Your task to perform on an android device: Empty the shopping cart on target. Add lenovo thinkpad to the cart on target, then select checkout. Image 0: 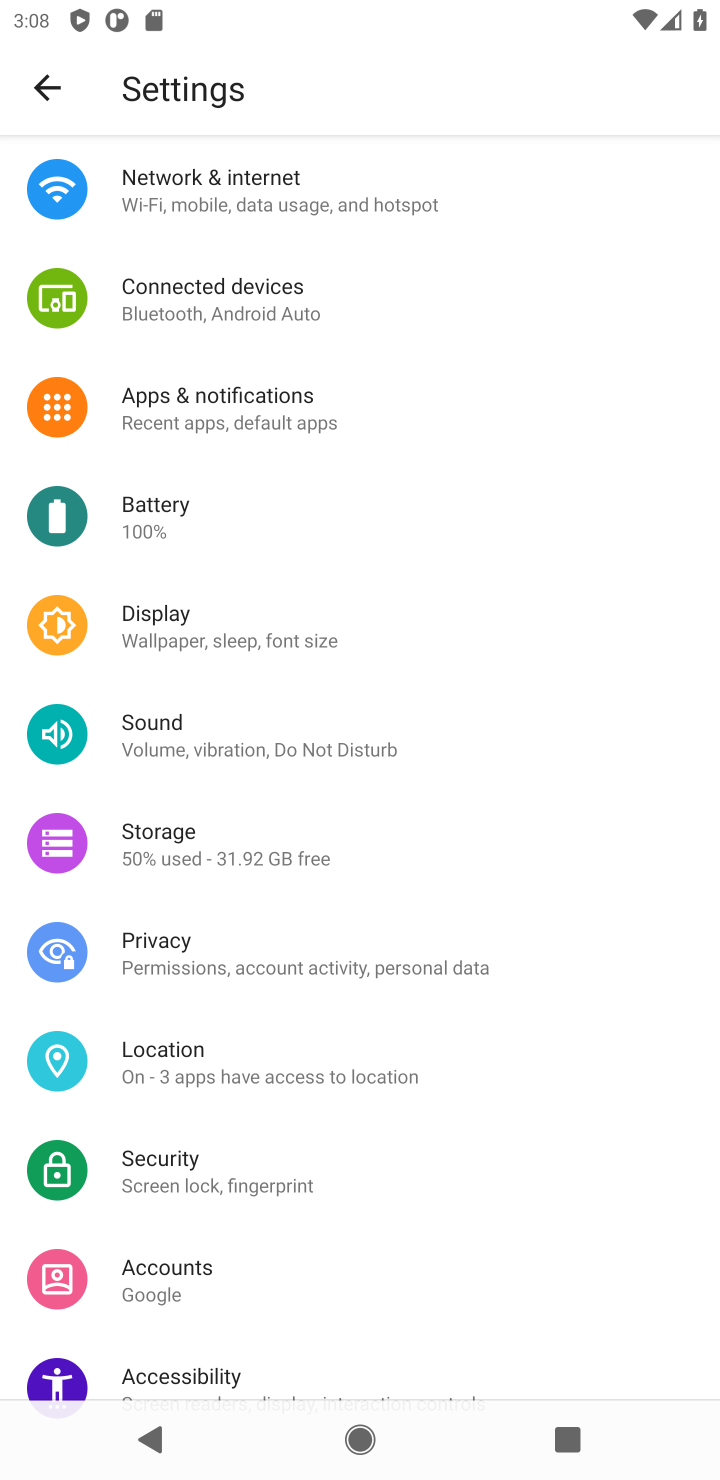
Step 0: press home button
Your task to perform on an android device: Empty the shopping cart on target. Add lenovo thinkpad to the cart on target, then select checkout. Image 1: 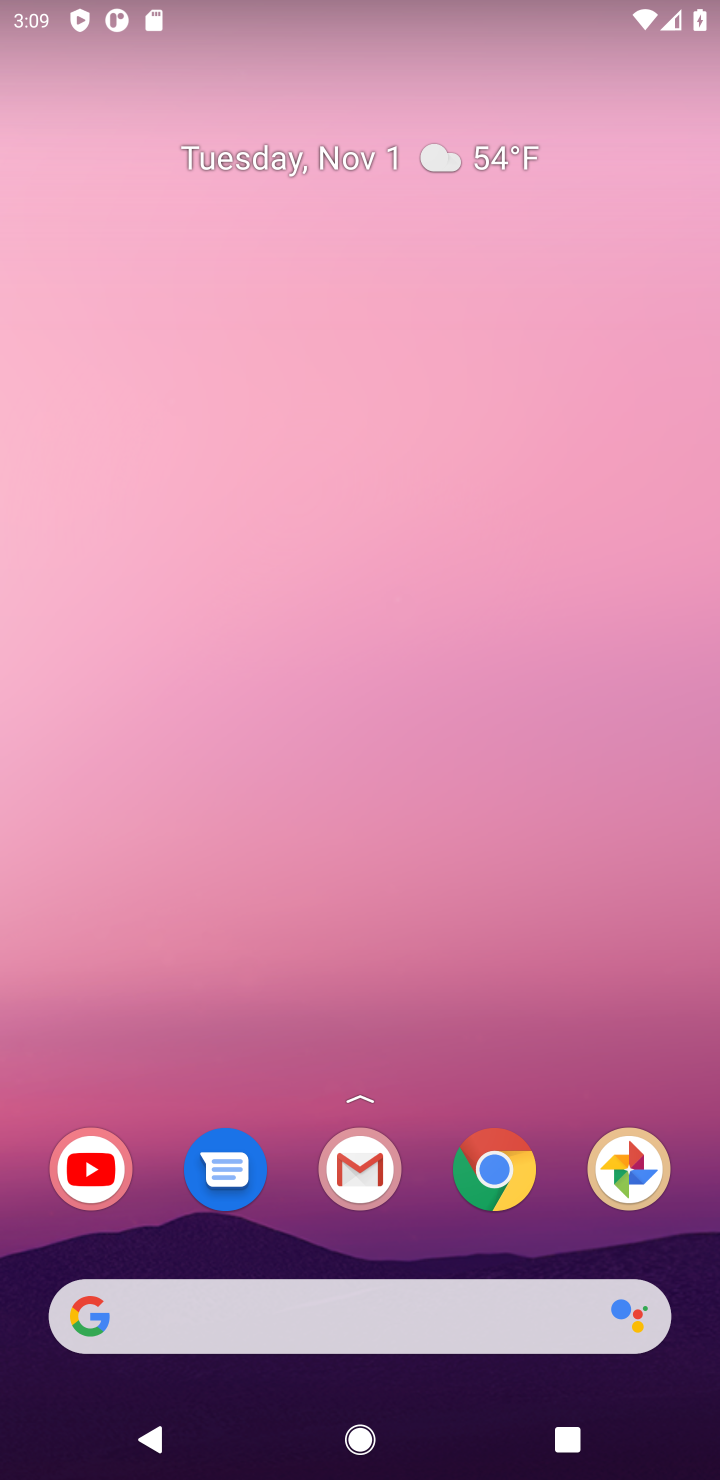
Step 1: click (476, 1175)
Your task to perform on an android device: Empty the shopping cart on target. Add lenovo thinkpad to the cart on target, then select checkout. Image 2: 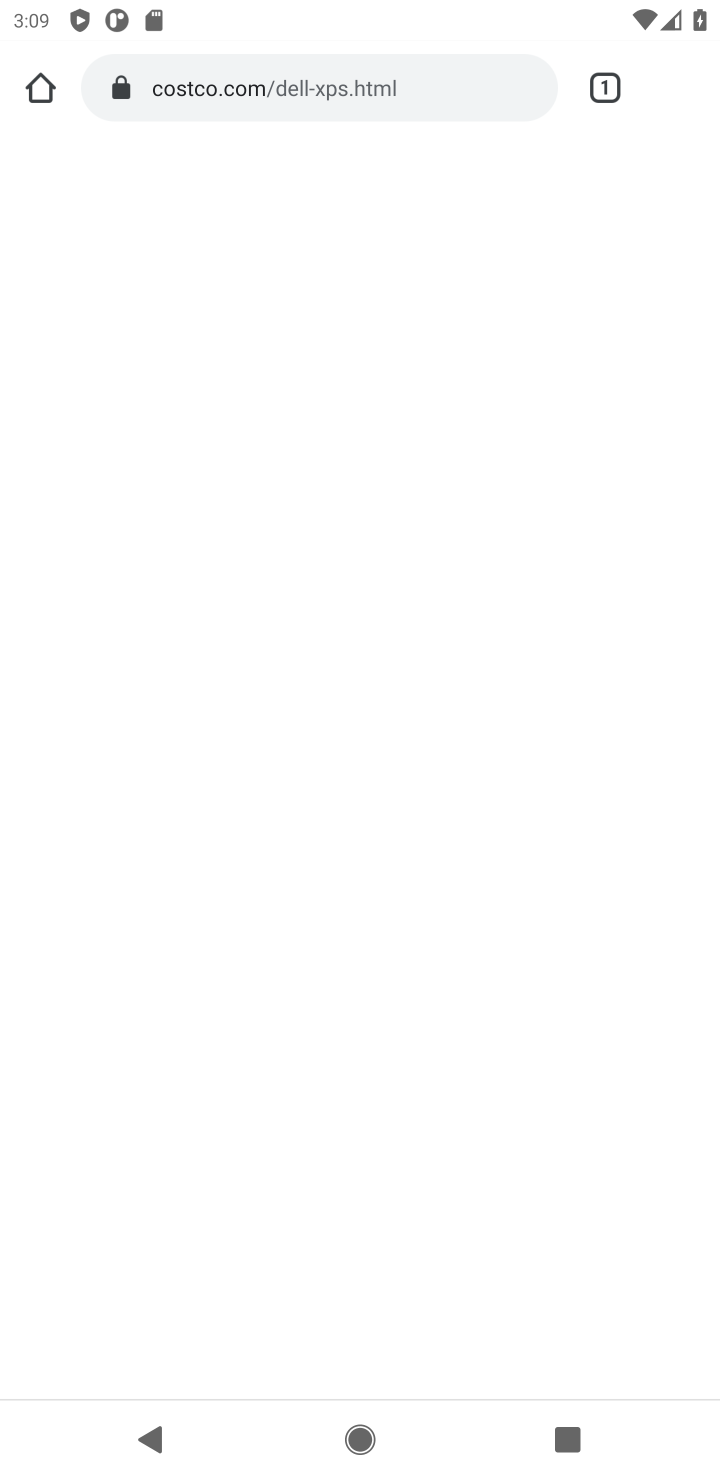
Step 2: click (476, 1175)
Your task to perform on an android device: Empty the shopping cart on target. Add lenovo thinkpad to the cart on target, then select checkout. Image 3: 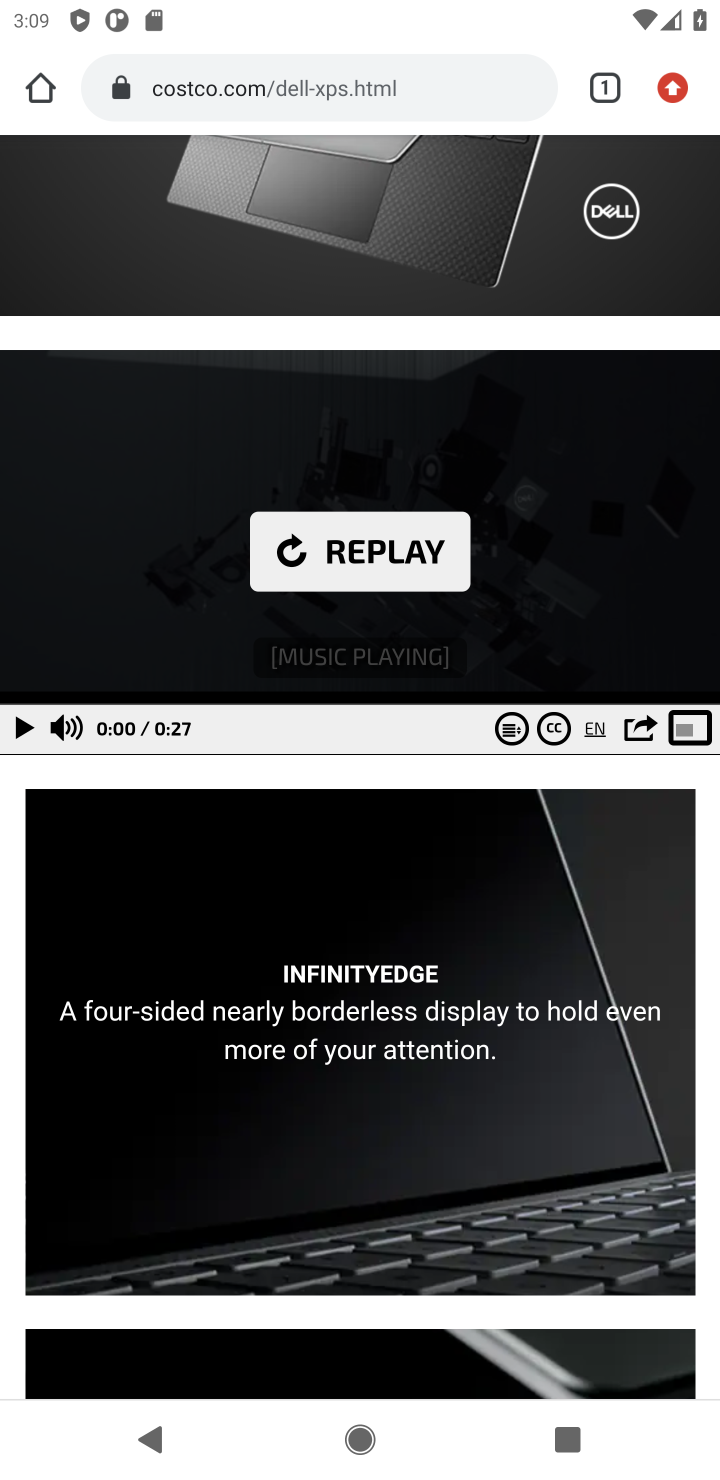
Step 3: click (173, 90)
Your task to perform on an android device: Empty the shopping cart on target. Add lenovo thinkpad to the cart on target, then select checkout. Image 4: 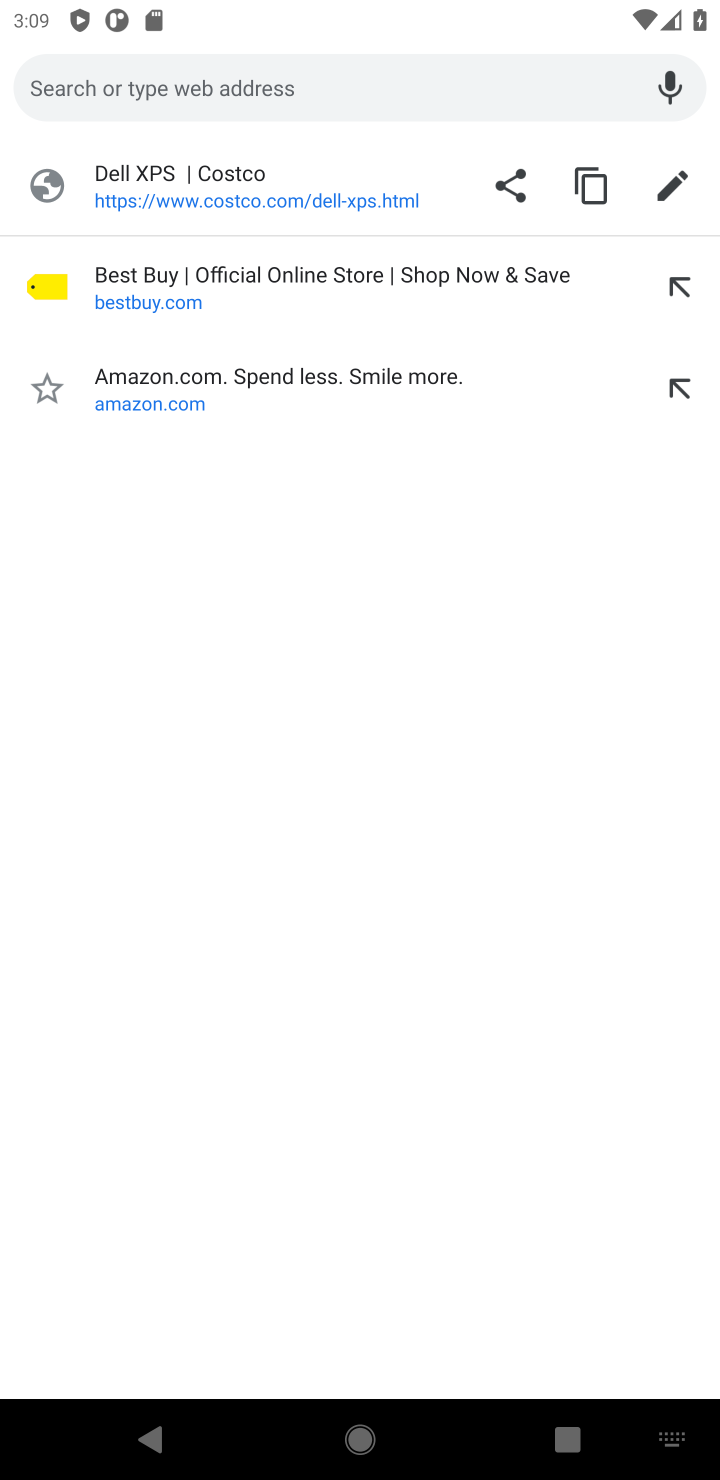
Step 4: type "target"
Your task to perform on an android device: Empty the shopping cart on target. Add lenovo thinkpad to the cart on target, then select checkout. Image 5: 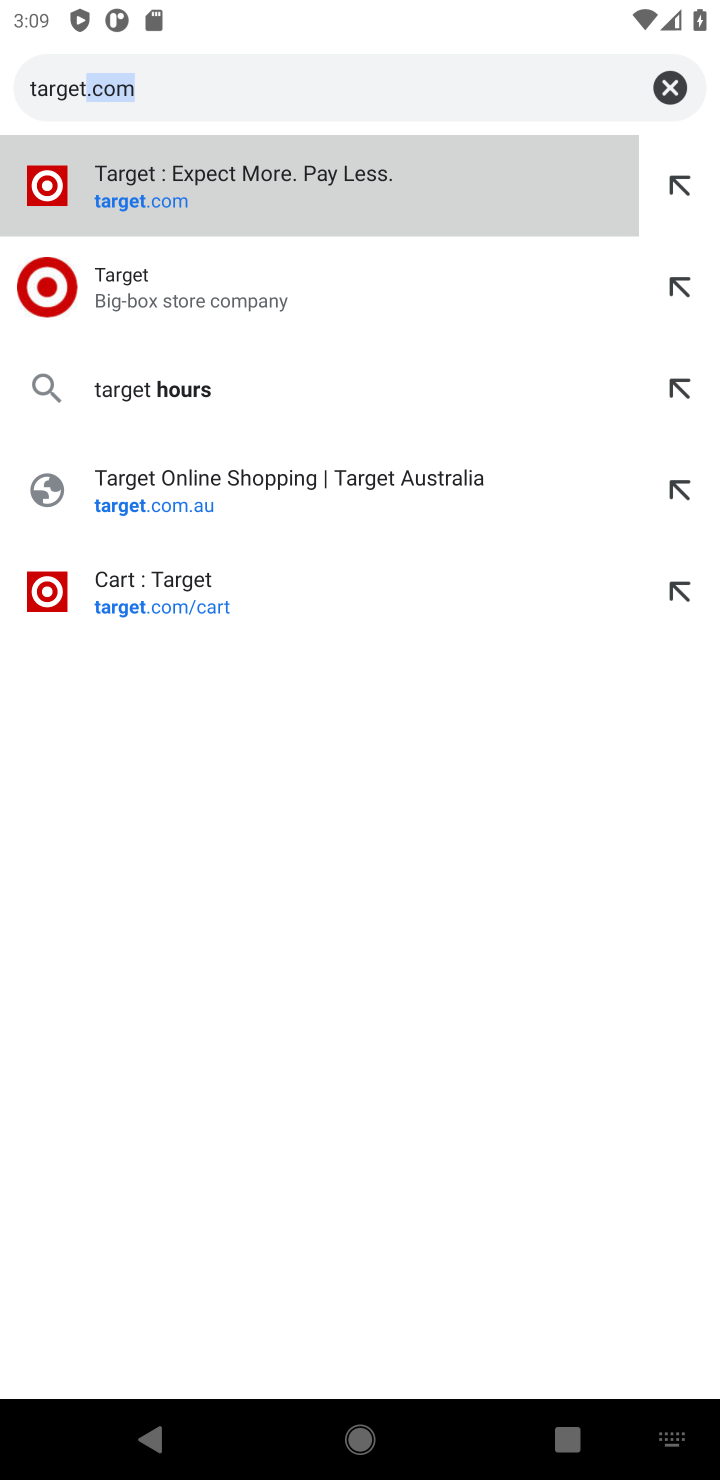
Step 5: click (292, 294)
Your task to perform on an android device: Empty the shopping cart on target. Add lenovo thinkpad to the cart on target, then select checkout. Image 6: 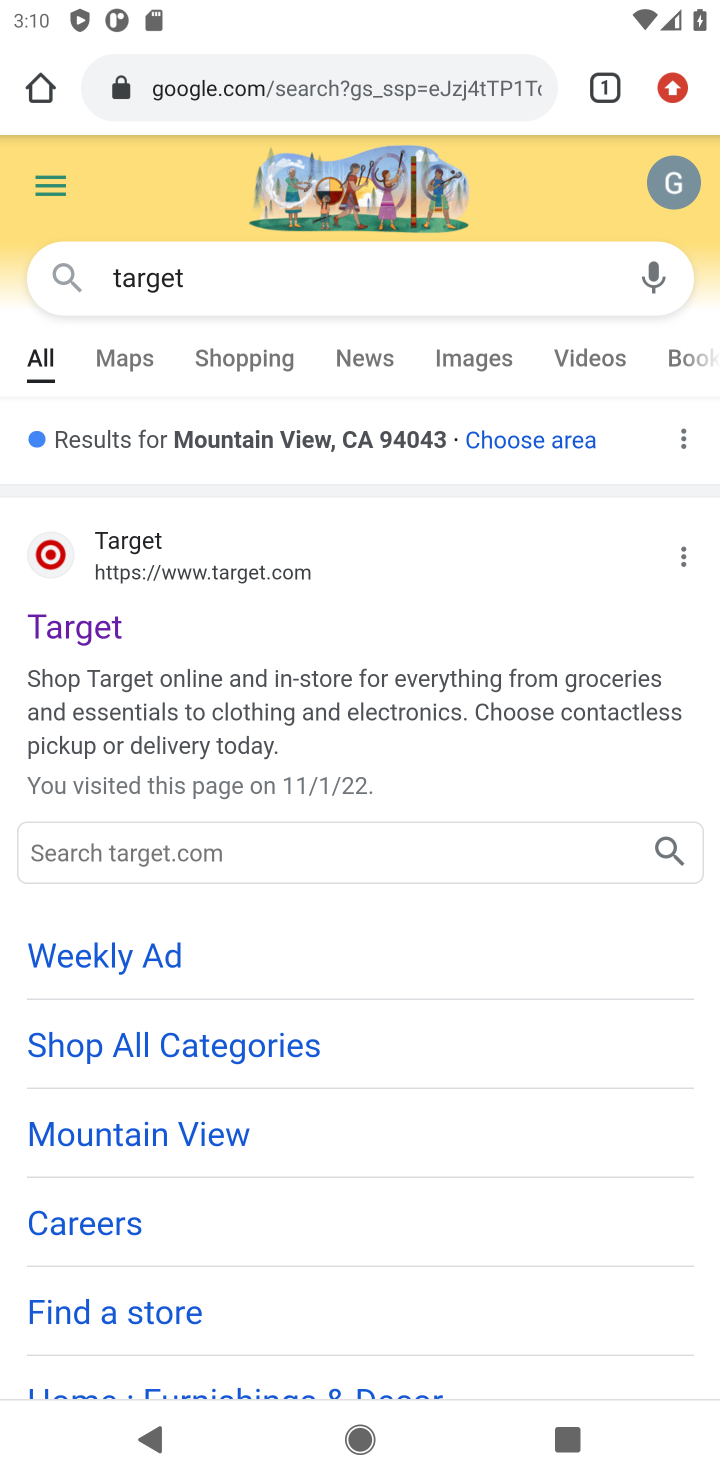
Step 6: click (61, 607)
Your task to perform on an android device: Empty the shopping cart on target. Add lenovo thinkpad to the cart on target, then select checkout. Image 7: 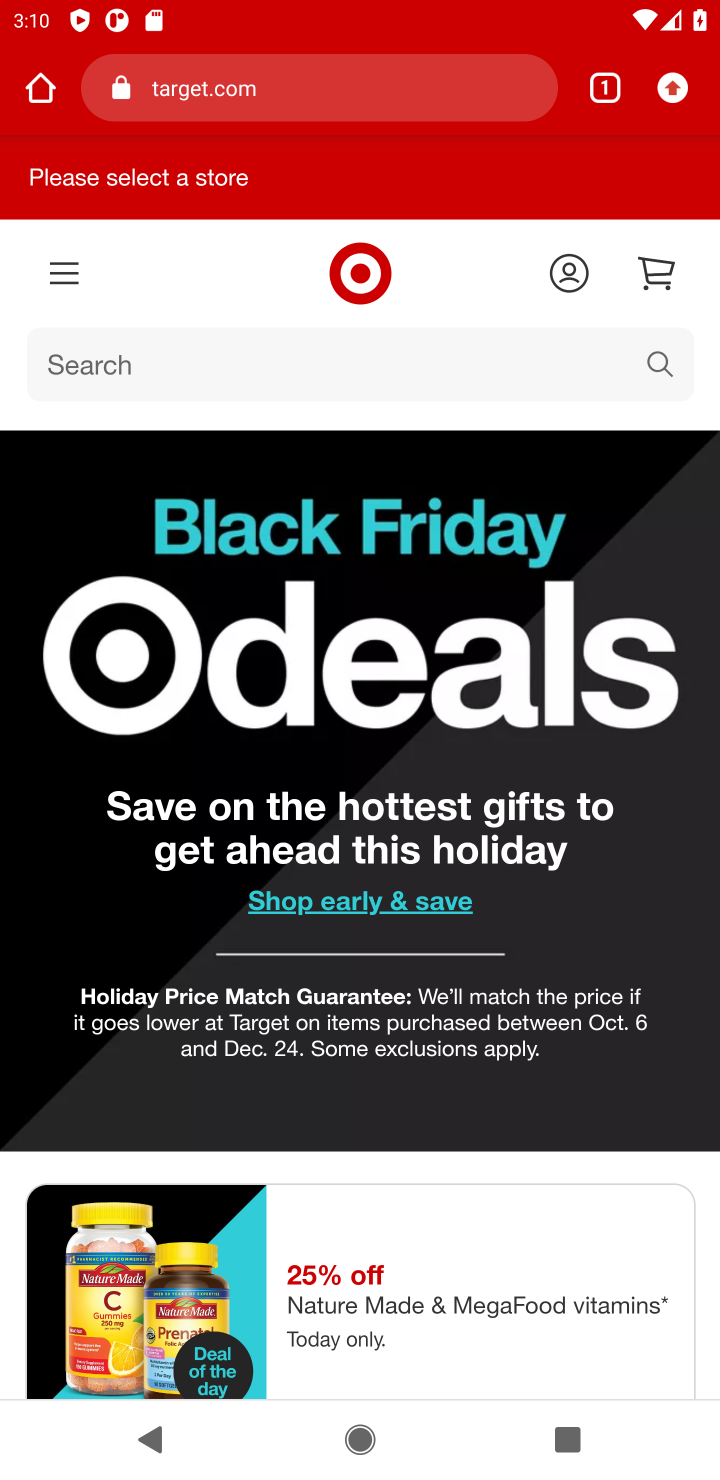
Step 7: click (660, 285)
Your task to perform on an android device: Empty the shopping cart on target. Add lenovo thinkpad to the cart on target, then select checkout. Image 8: 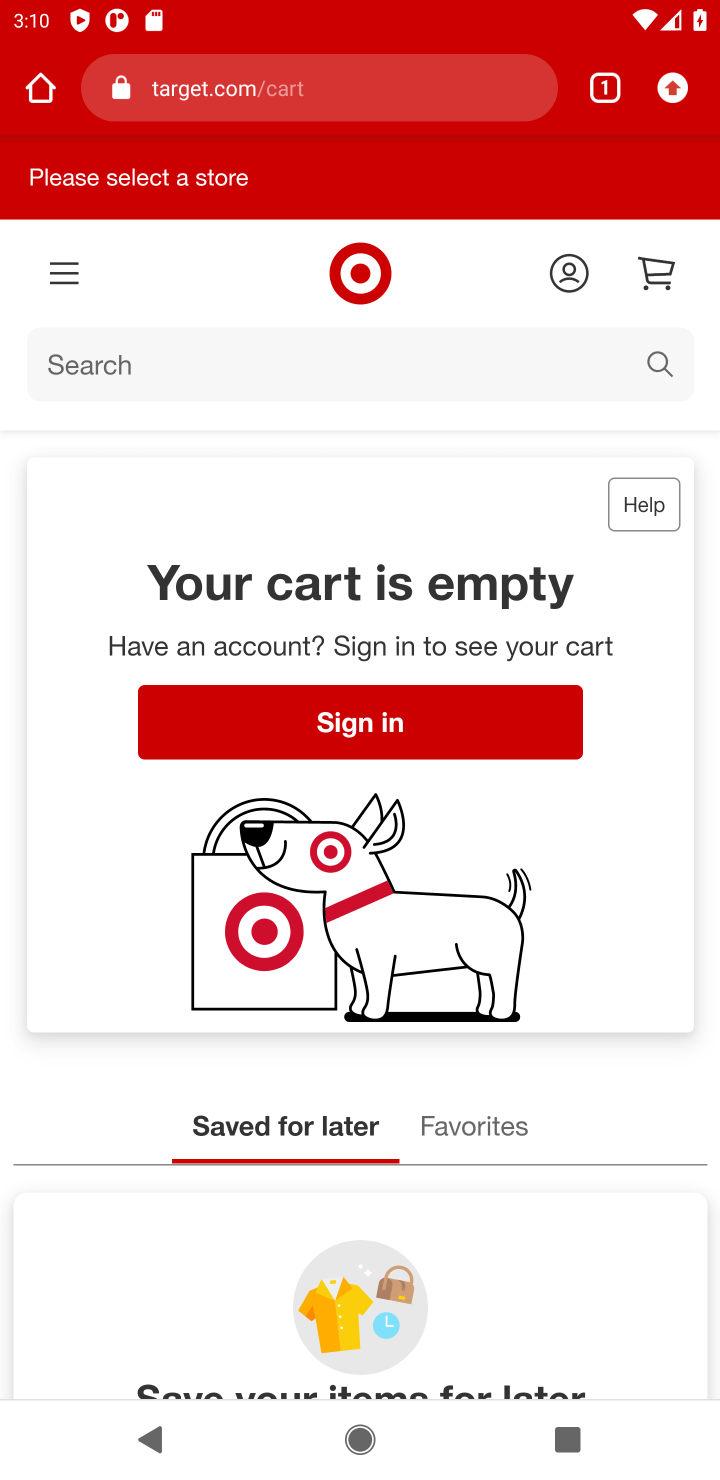
Step 8: click (188, 367)
Your task to perform on an android device: Empty the shopping cart on target. Add lenovo thinkpad to the cart on target, then select checkout. Image 9: 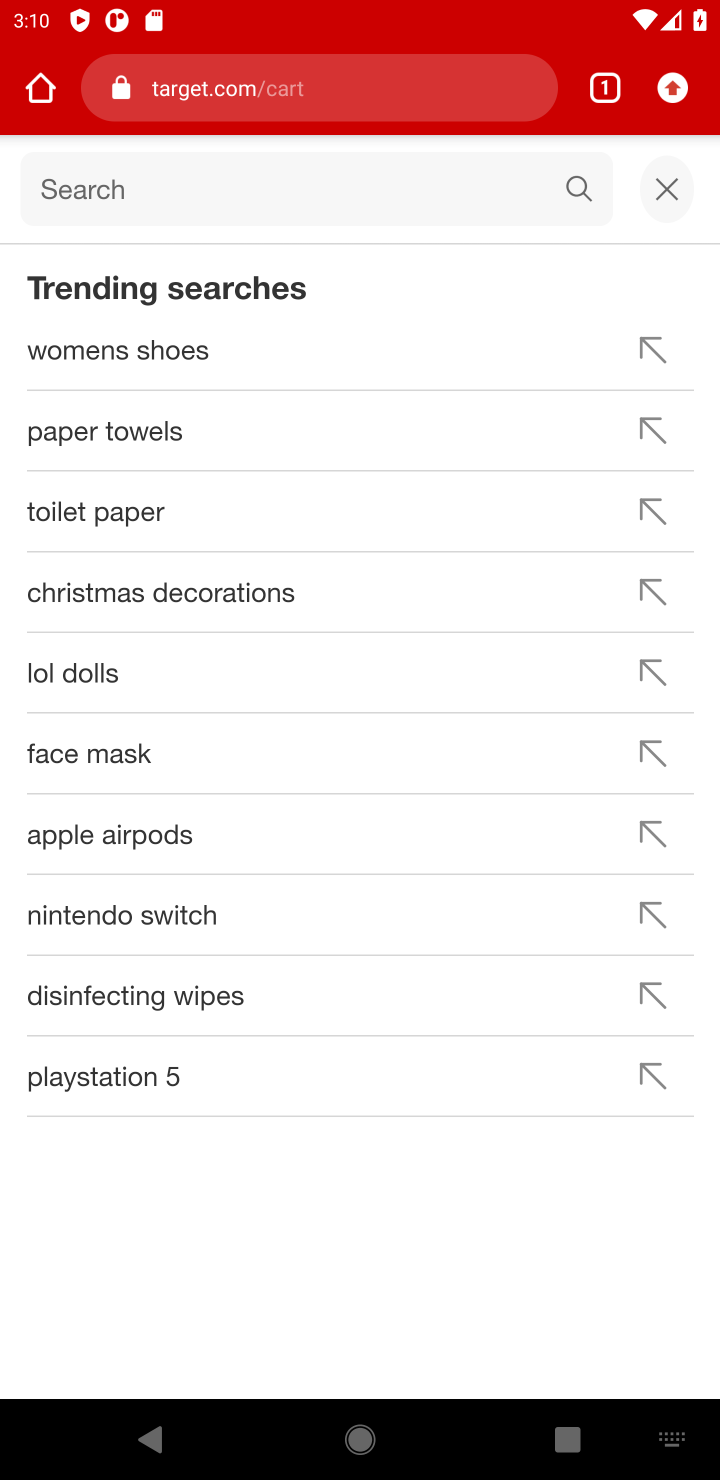
Step 9: type "lenovo thinkpad"
Your task to perform on an android device: Empty the shopping cart on target. Add lenovo thinkpad to the cart on target, then select checkout. Image 10: 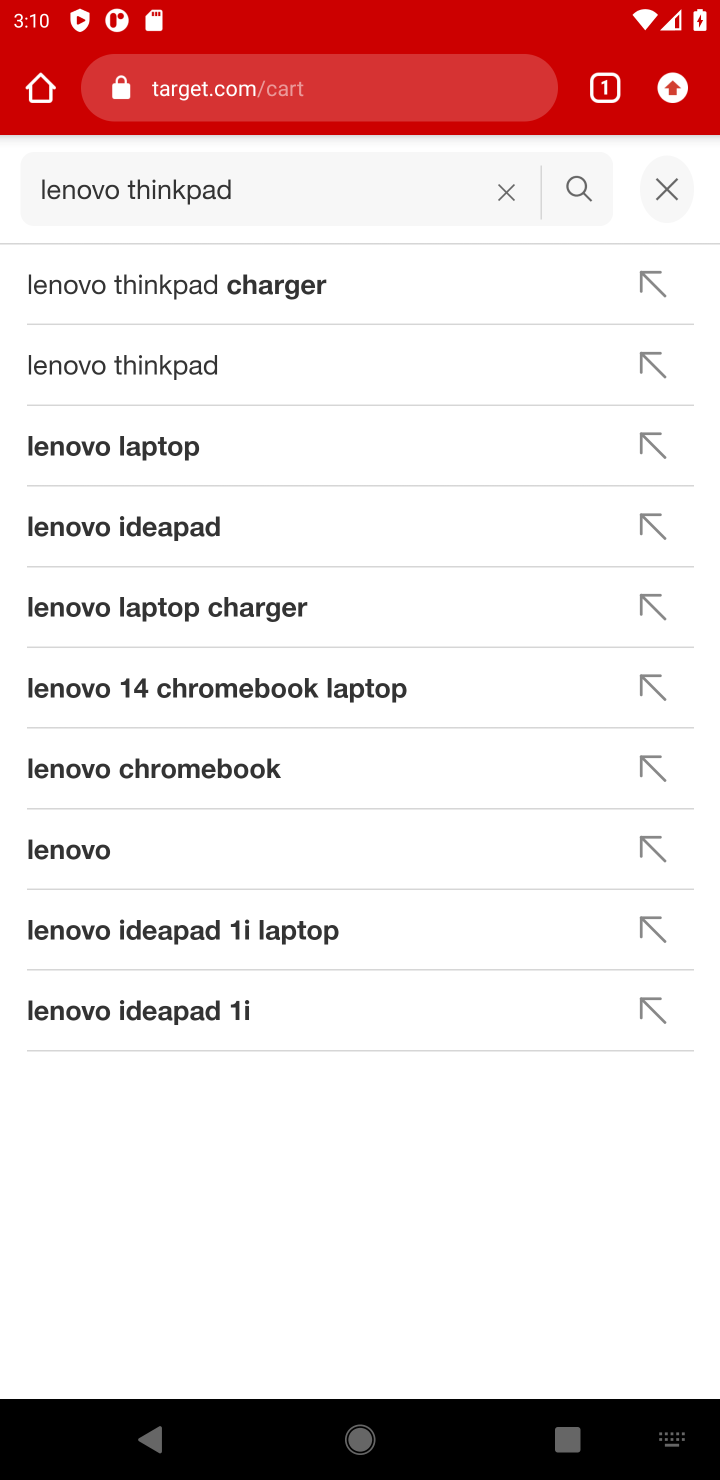
Step 10: click (583, 179)
Your task to perform on an android device: Empty the shopping cart on target. Add lenovo thinkpad to the cart on target, then select checkout. Image 11: 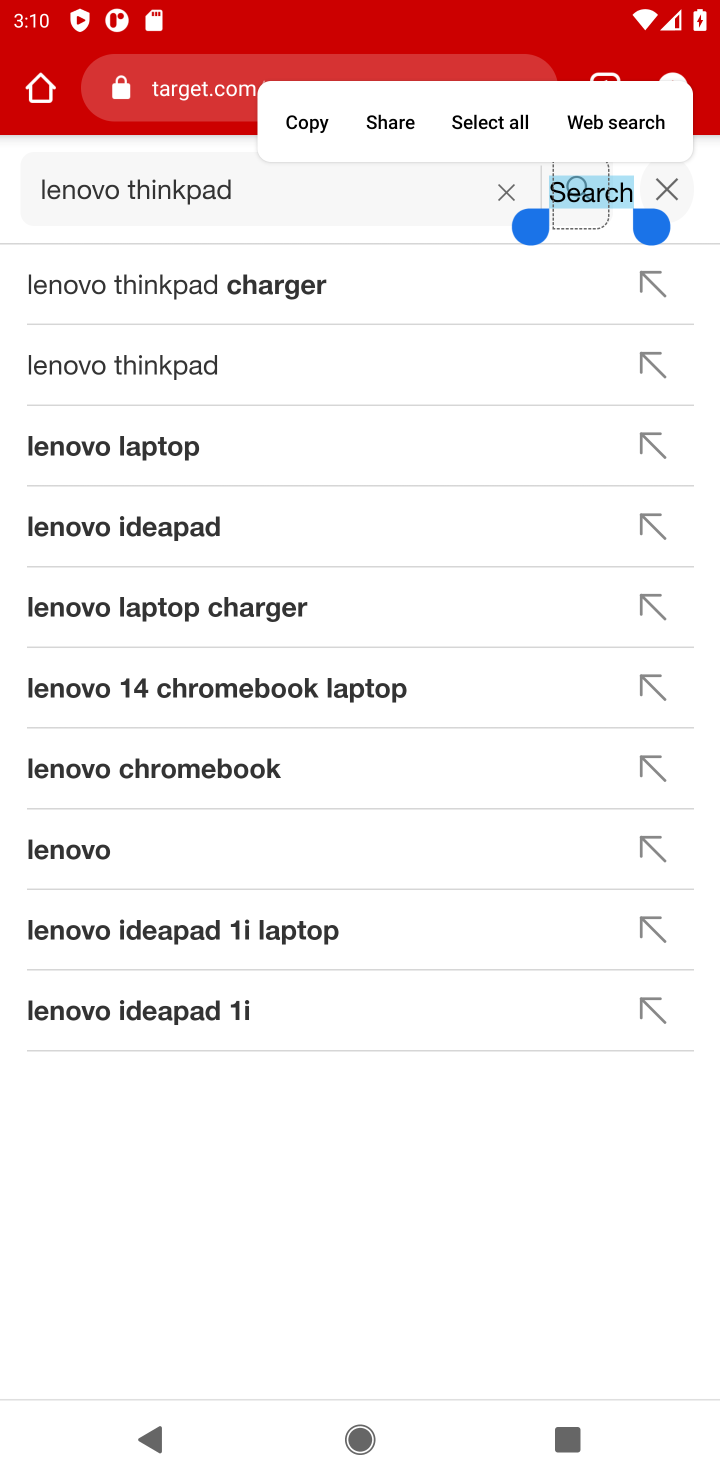
Step 11: click (575, 183)
Your task to perform on an android device: Empty the shopping cart on target. Add lenovo thinkpad to the cart on target, then select checkout. Image 12: 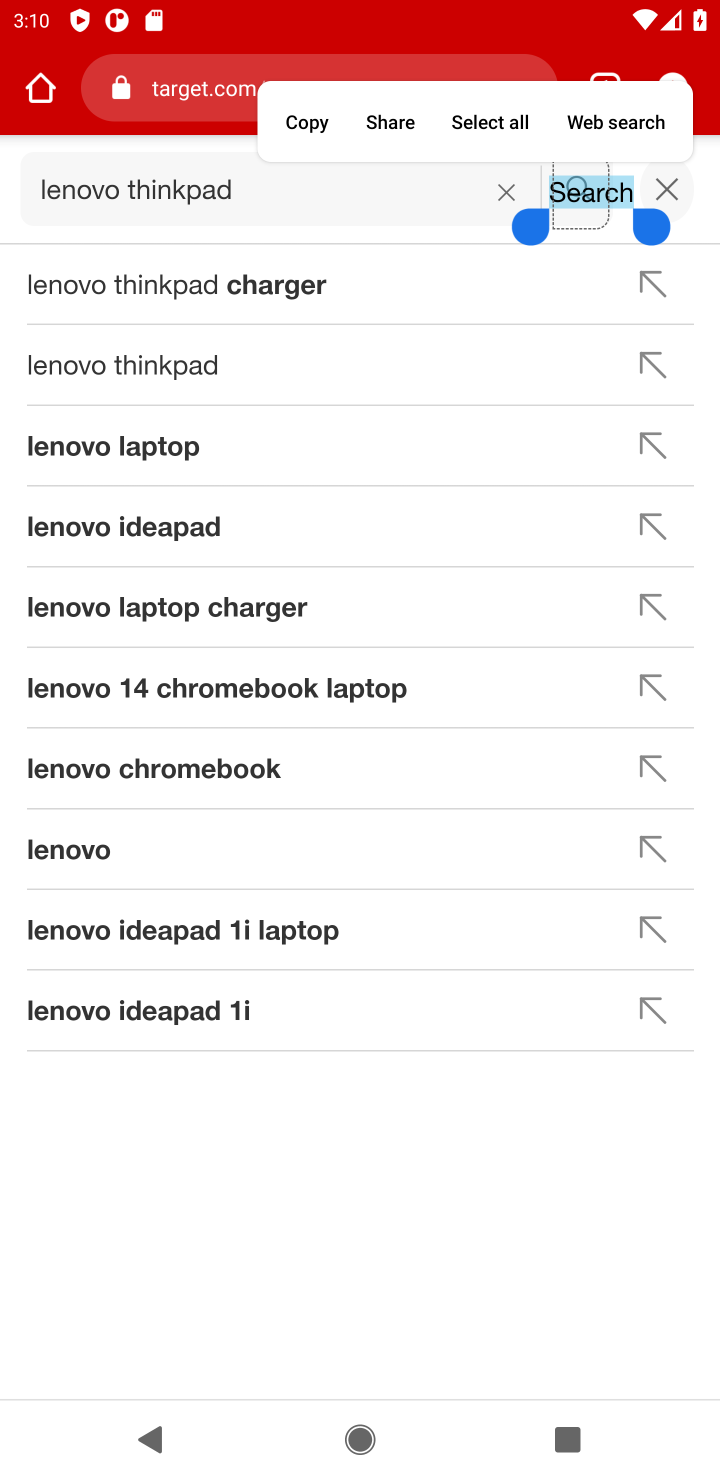
Step 12: click (575, 183)
Your task to perform on an android device: Empty the shopping cart on target. Add lenovo thinkpad to the cart on target, then select checkout. Image 13: 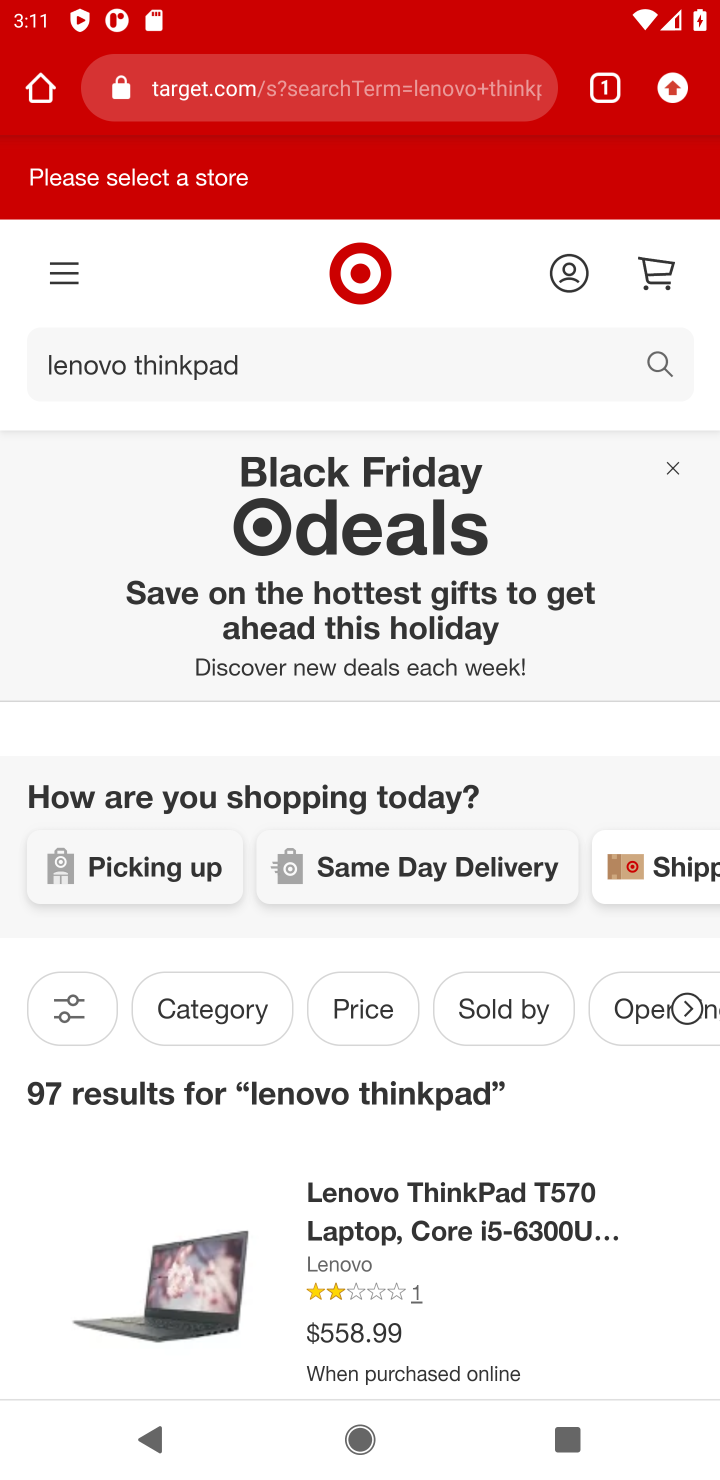
Step 13: drag from (388, 1161) to (441, 412)
Your task to perform on an android device: Empty the shopping cart on target. Add lenovo thinkpad to the cart on target, then select checkout. Image 14: 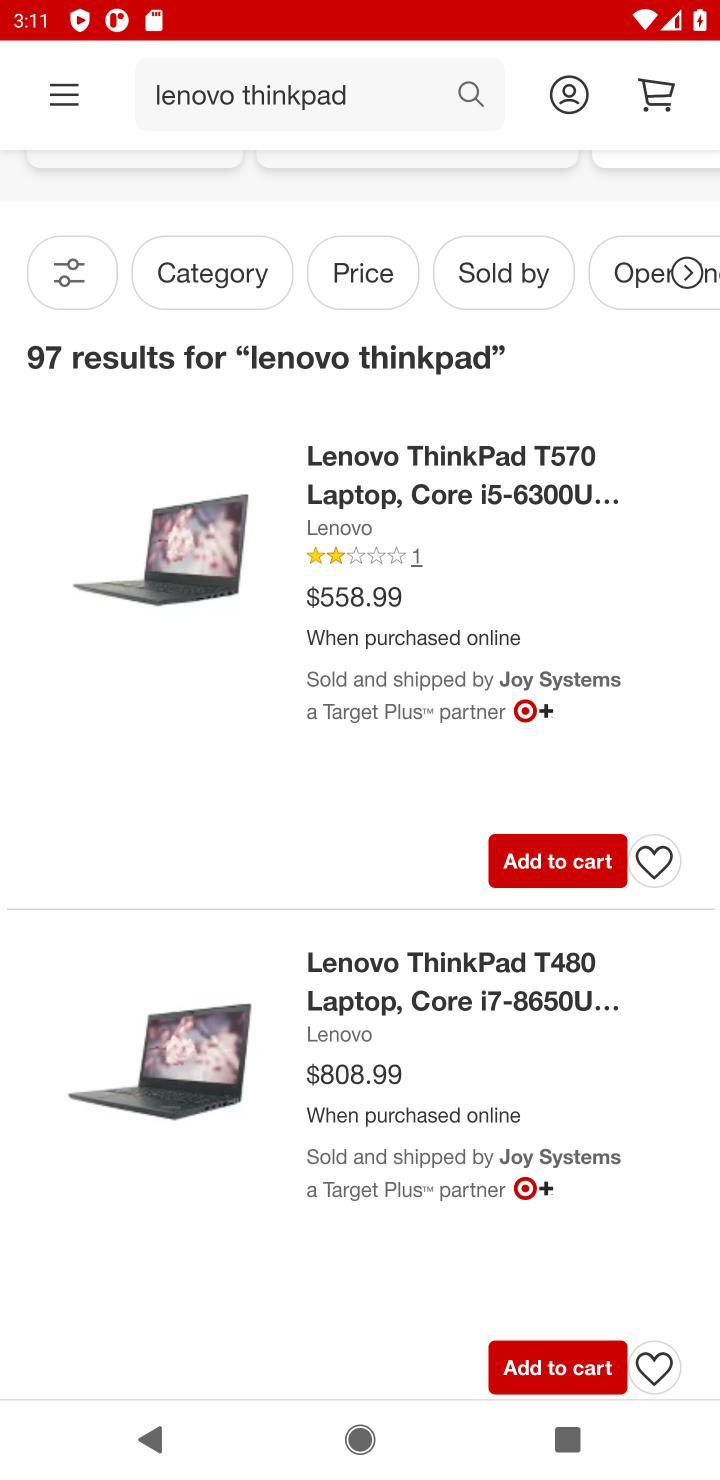
Step 14: click (552, 860)
Your task to perform on an android device: Empty the shopping cart on target. Add lenovo thinkpad to the cart on target, then select checkout. Image 15: 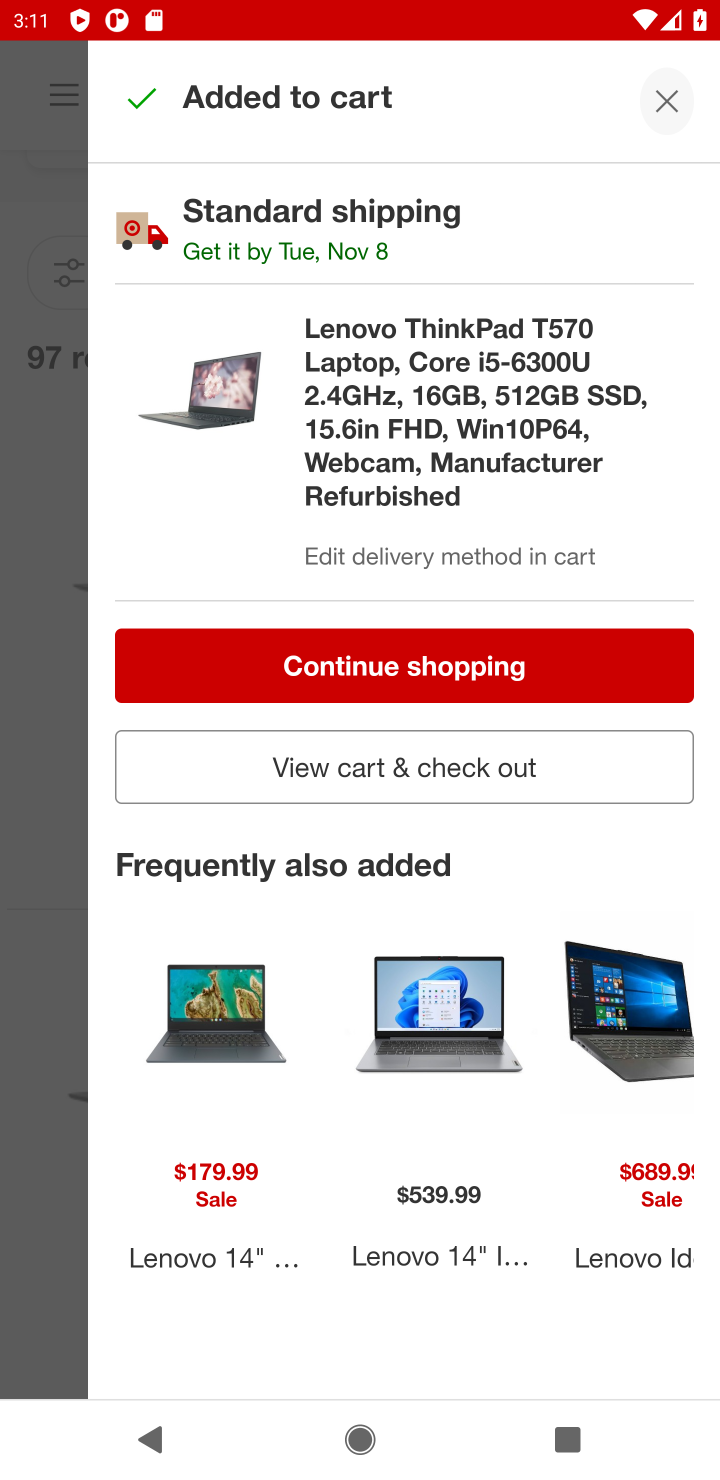
Step 15: click (355, 782)
Your task to perform on an android device: Empty the shopping cart on target. Add lenovo thinkpad to the cart on target, then select checkout. Image 16: 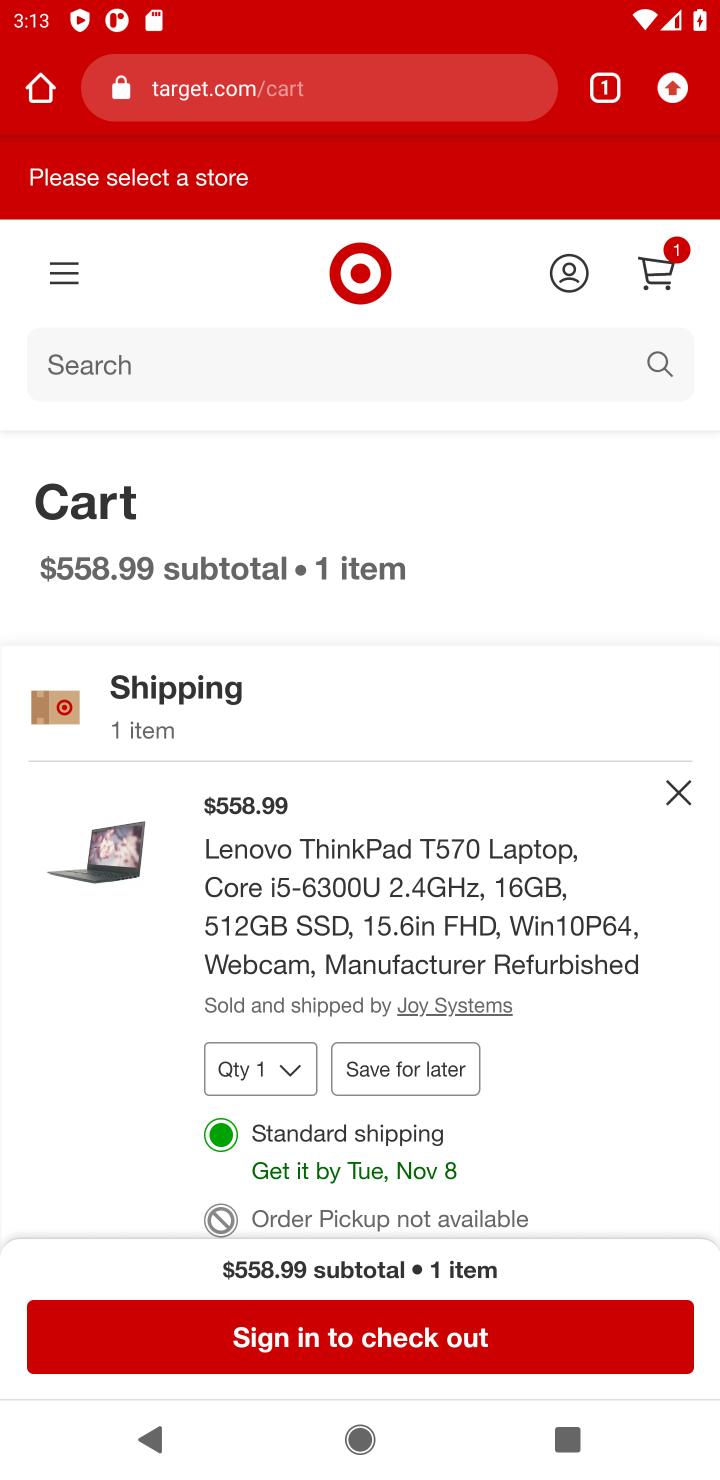
Step 16: task complete